Your task to perform on an android device: set the timer Image 0: 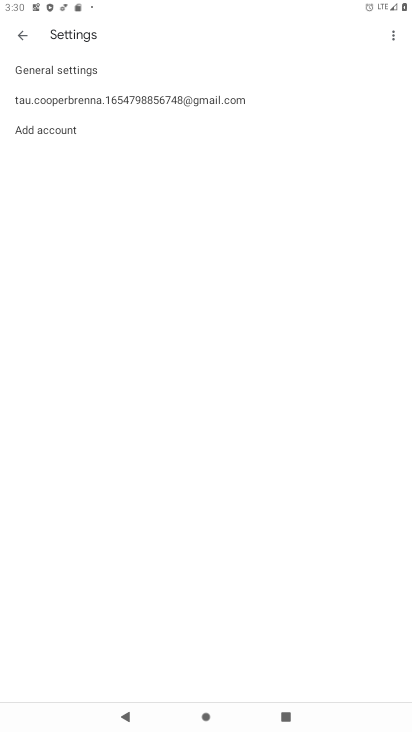
Step 0: press home button
Your task to perform on an android device: set the timer Image 1: 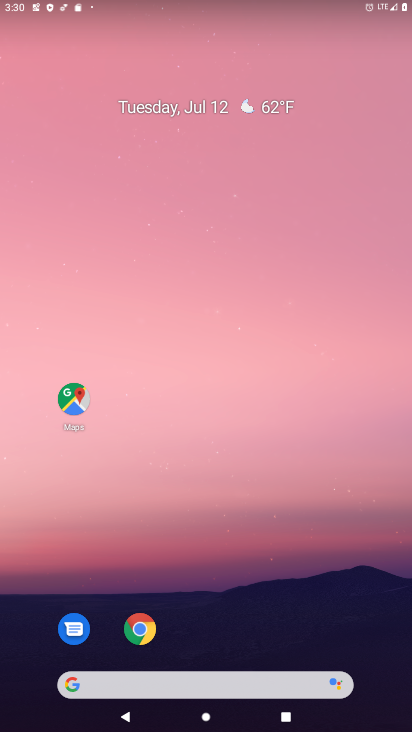
Step 1: drag from (200, 657) to (175, 57)
Your task to perform on an android device: set the timer Image 2: 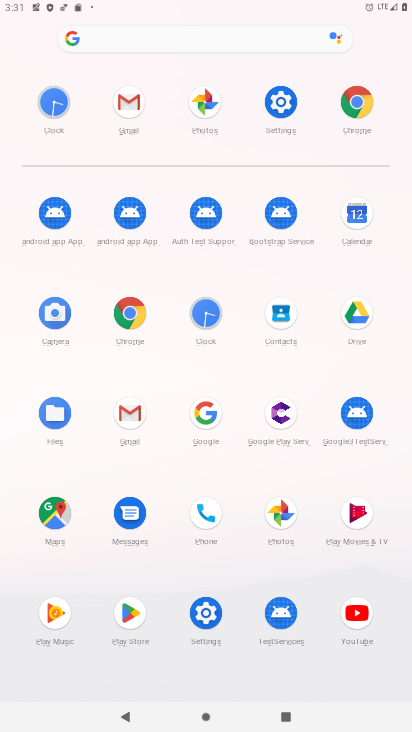
Step 2: click (207, 317)
Your task to perform on an android device: set the timer Image 3: 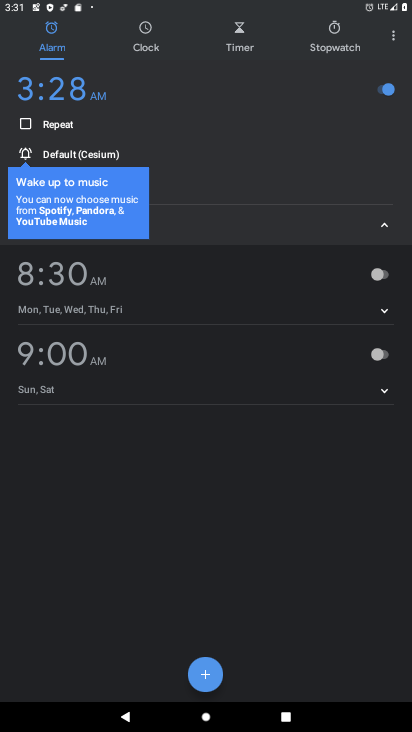
Step 3: click (235, 39)
Your task to perform on an android device: set the timer Image 4: 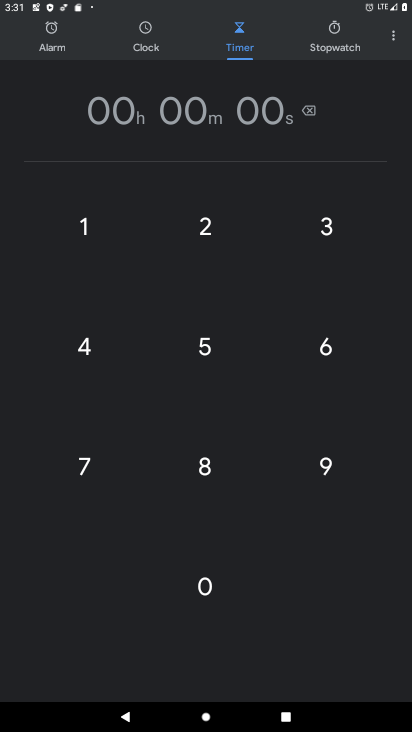
Step 4: click (224, 212)
Your task to perform on an android device: set the timer Image 5: 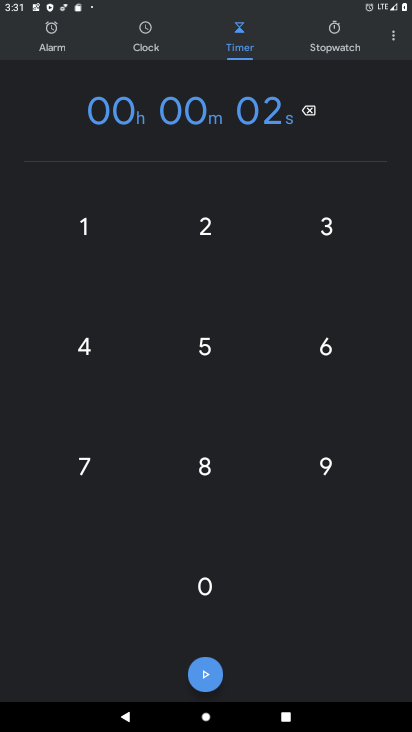
Step 5: click (214, 666)
Your task to perform on an android device: set the timer Image 6: 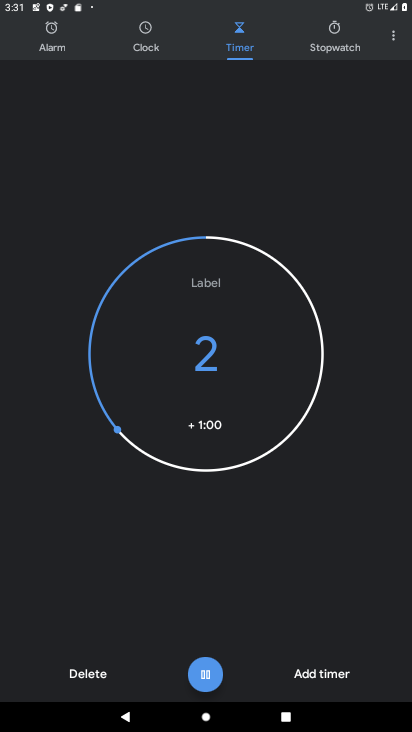
Step 6: task complete